Your task to perform on an android device: turn pop-ups off in chrome Image 0: 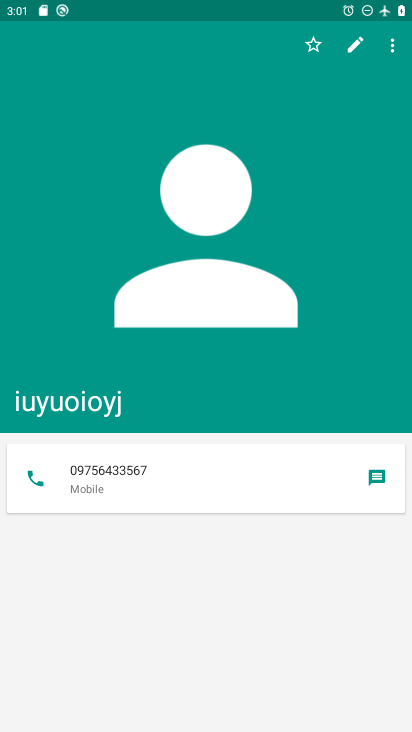
Step 0: press home button
Your task to perform on an android device: turn pop-ups off in chrome Image 1: 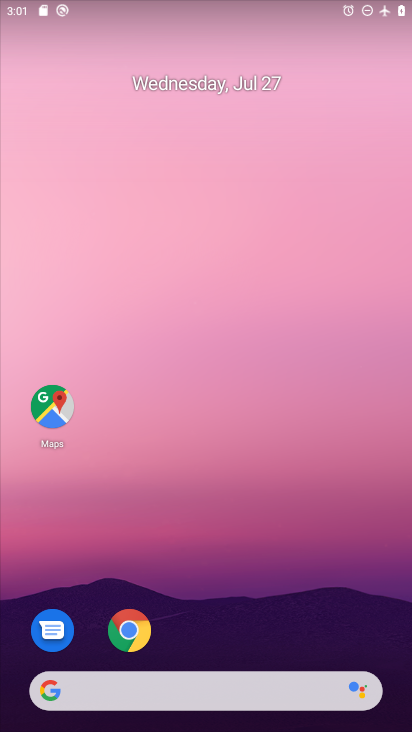
Step 1: click (133, 630)
Your task to perform on an android device: turn pop-ups off in chrome Image 2: 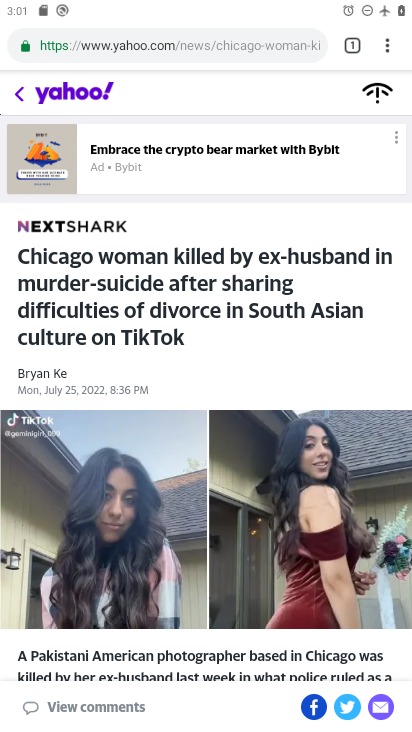
Step 2: click (386, 52)
Your task to perform on an android device: turn pop-ups off in chrome Image 3: 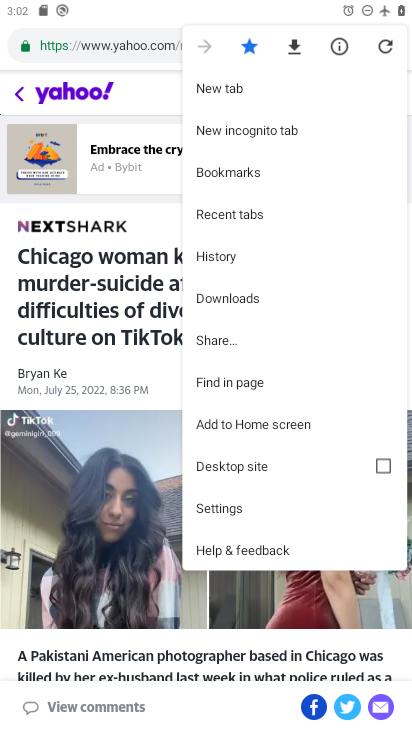
Step 3: click (232, 509)
Your task to perform on an android device: turn pop-ups off in chrome Image 4: 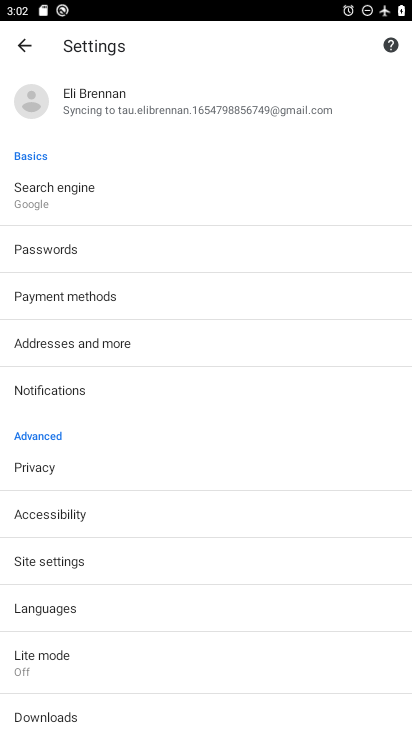
Step 4: click (69, 569)
Your task to perform on an android device: turn pop-ups off in chrome Image 5: 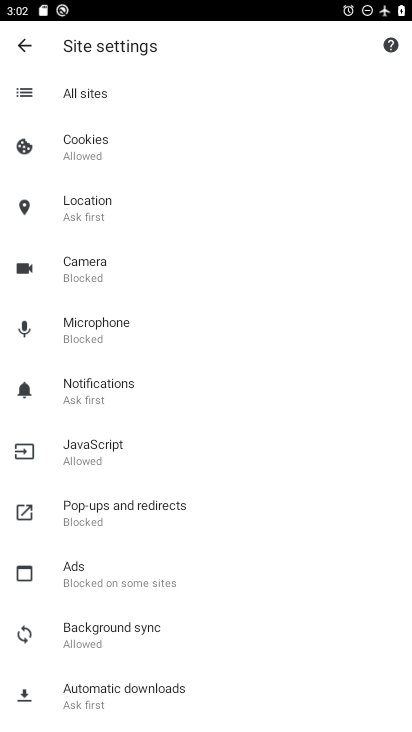
Step 5: click (90, 515)
Your task to perform on an android device: turn pop-ups off in chrome Image 6: 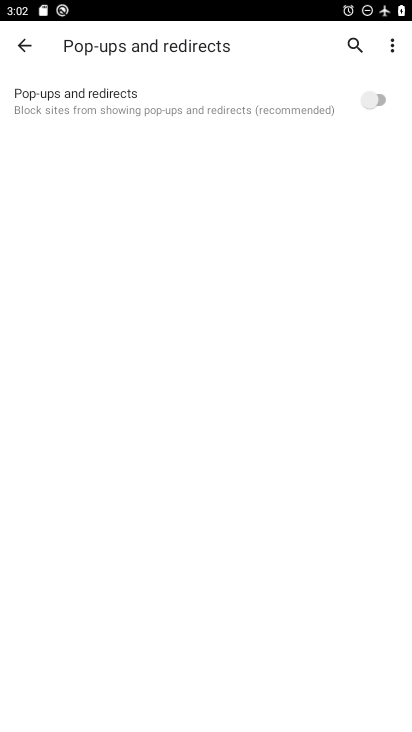
Step 6: task complete